Your task to perform on an android device: Add "razer blackwidow" to the cart on ebay Image 0: 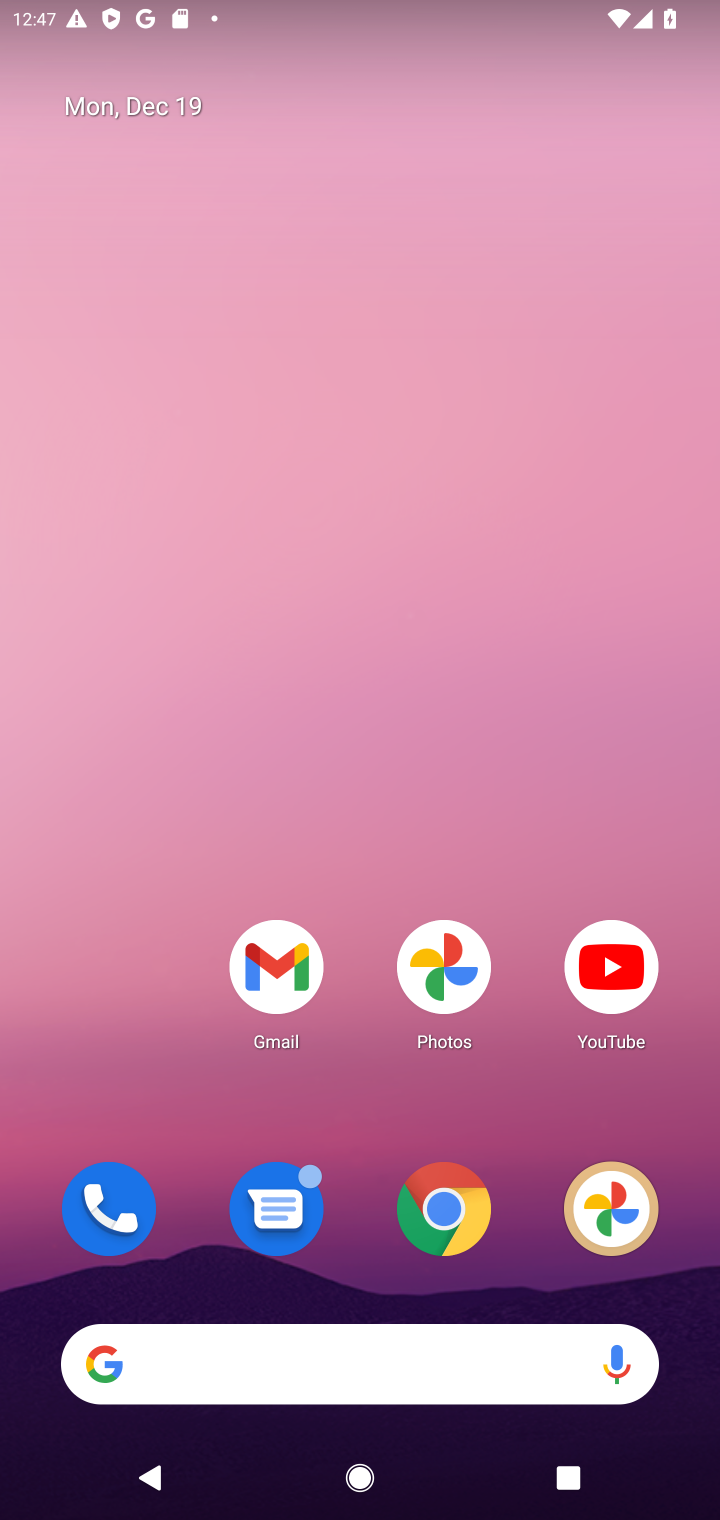
Step 0: click (461, 1182)
Your task to perform on an android device: Add "razer blackwidow" to the cart on ebay Image 1: 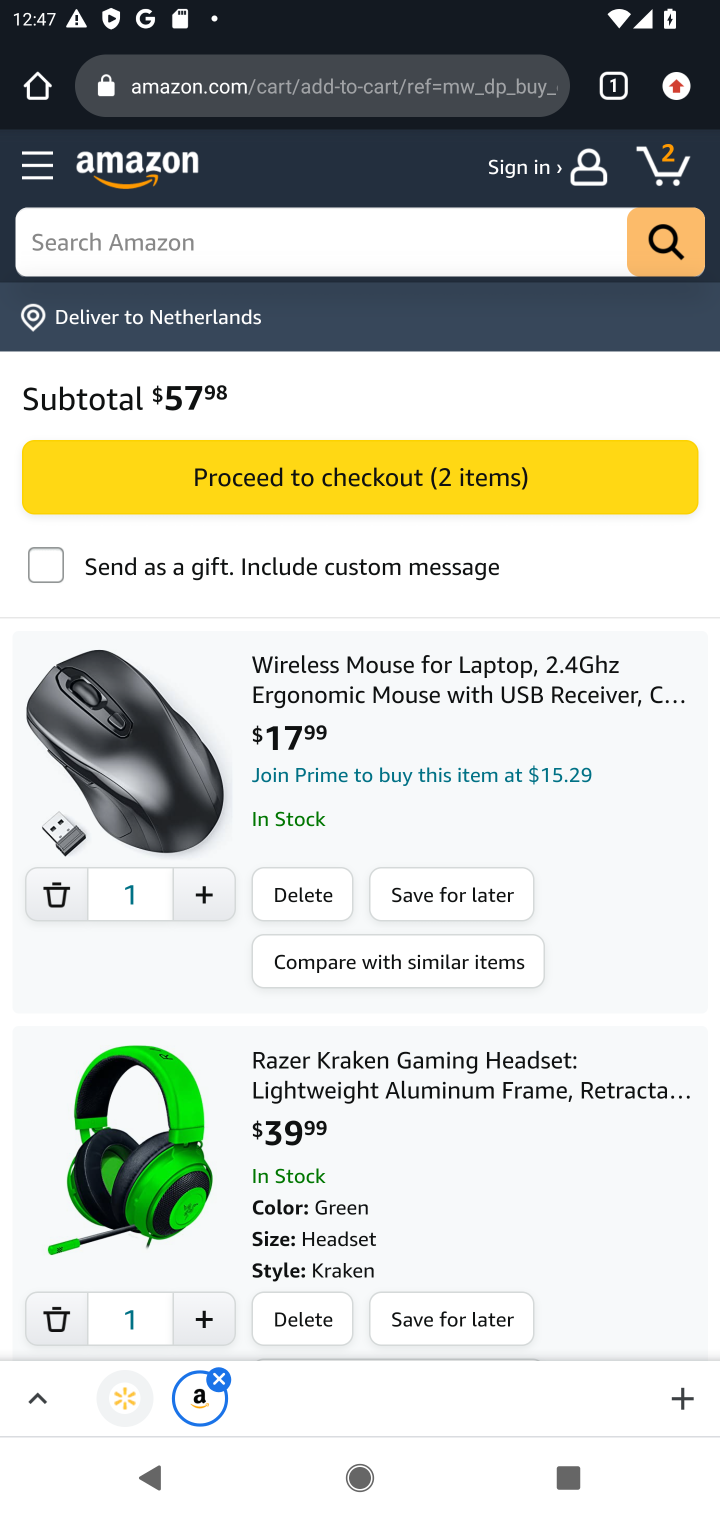
Step 1: click (275, 87)
Your task to perform on an android device: Add "razer blackwidow" to the cart on ebay Image 2: 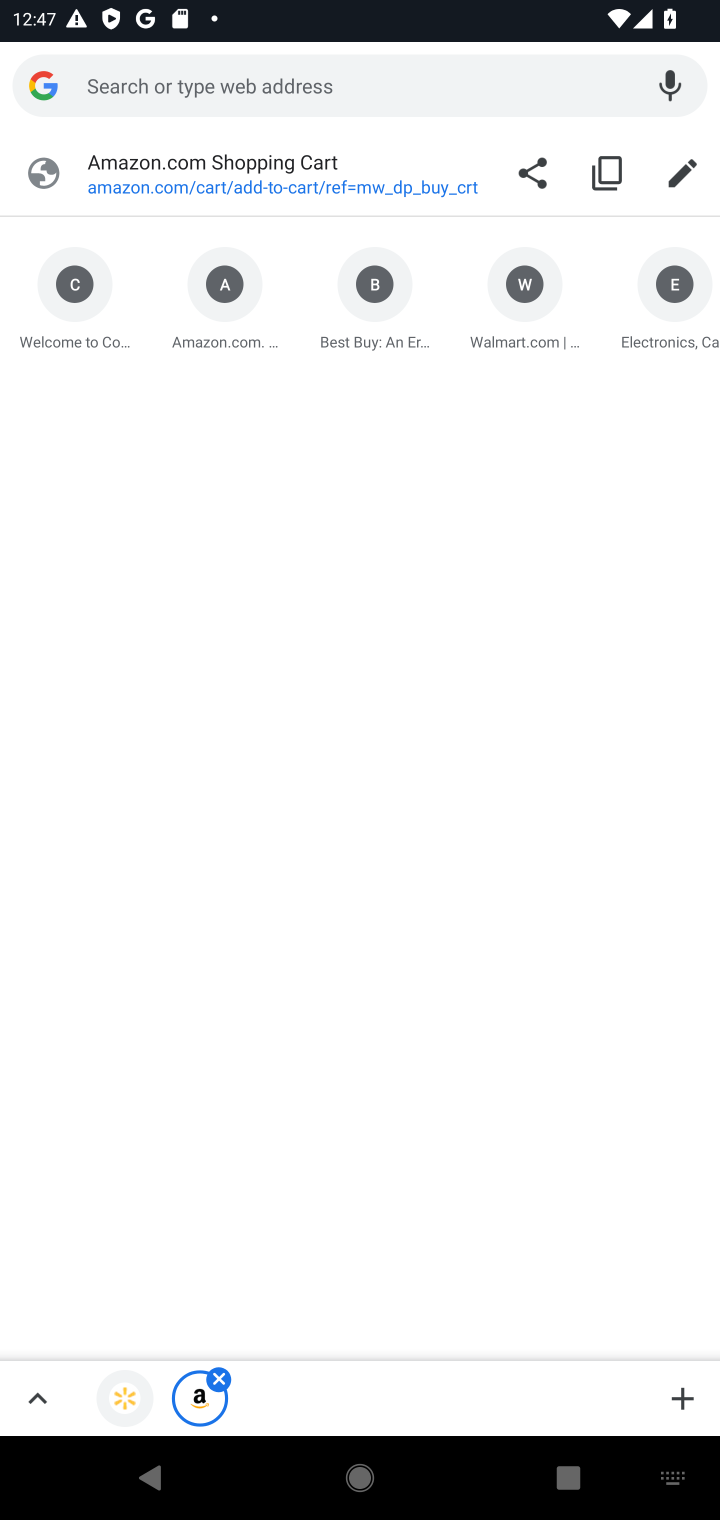
Step 2: type "ebay"
Your task to perform on an android device: Add "razer blackwidow" to the cart on ebay Image 3: 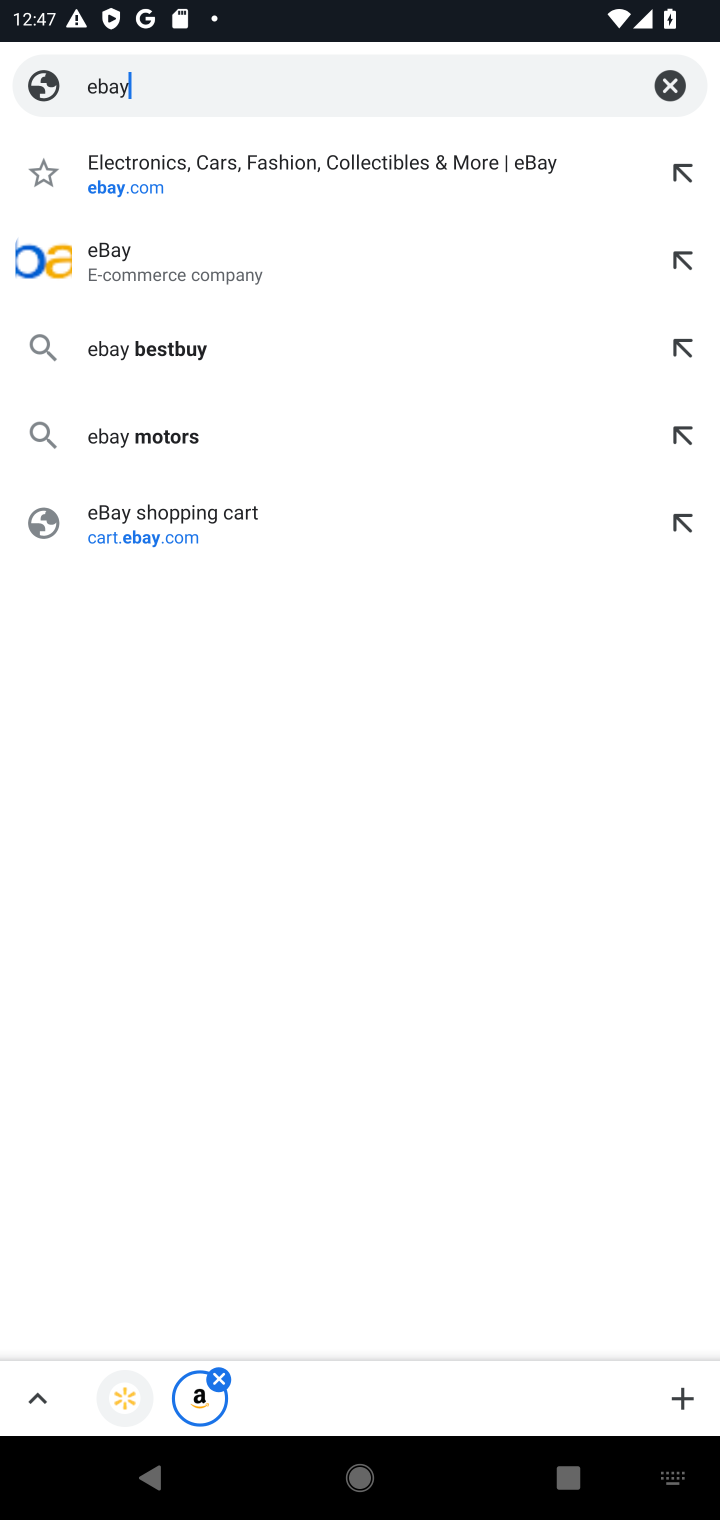
Step 3: click (211, 177)
Your task to perform on an android device: Add "razer blackwidow" to the cart on ebay Image 4: 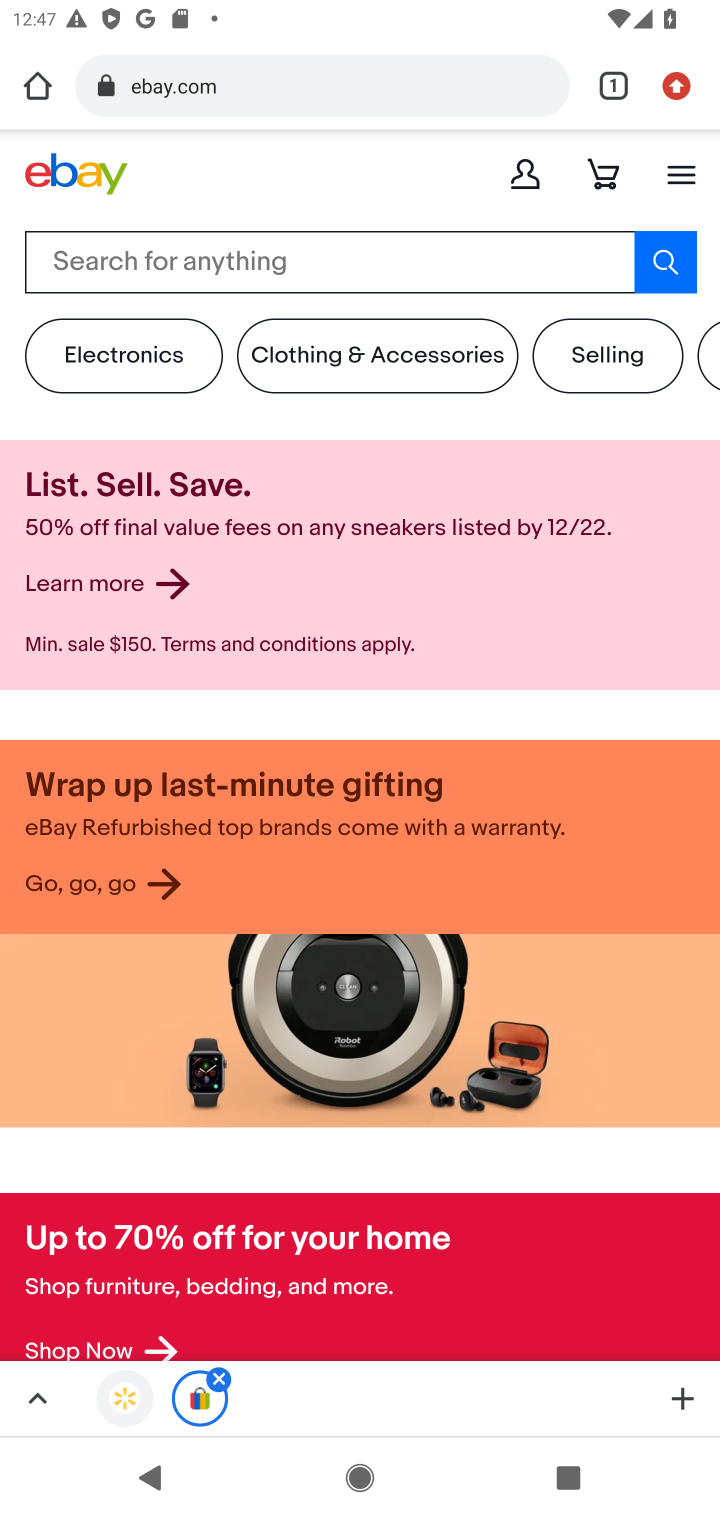
Step 4: click (326, 267)
Your task to perform on an android device: Add "razer blackwidow" to the cart on ebay Image 5: 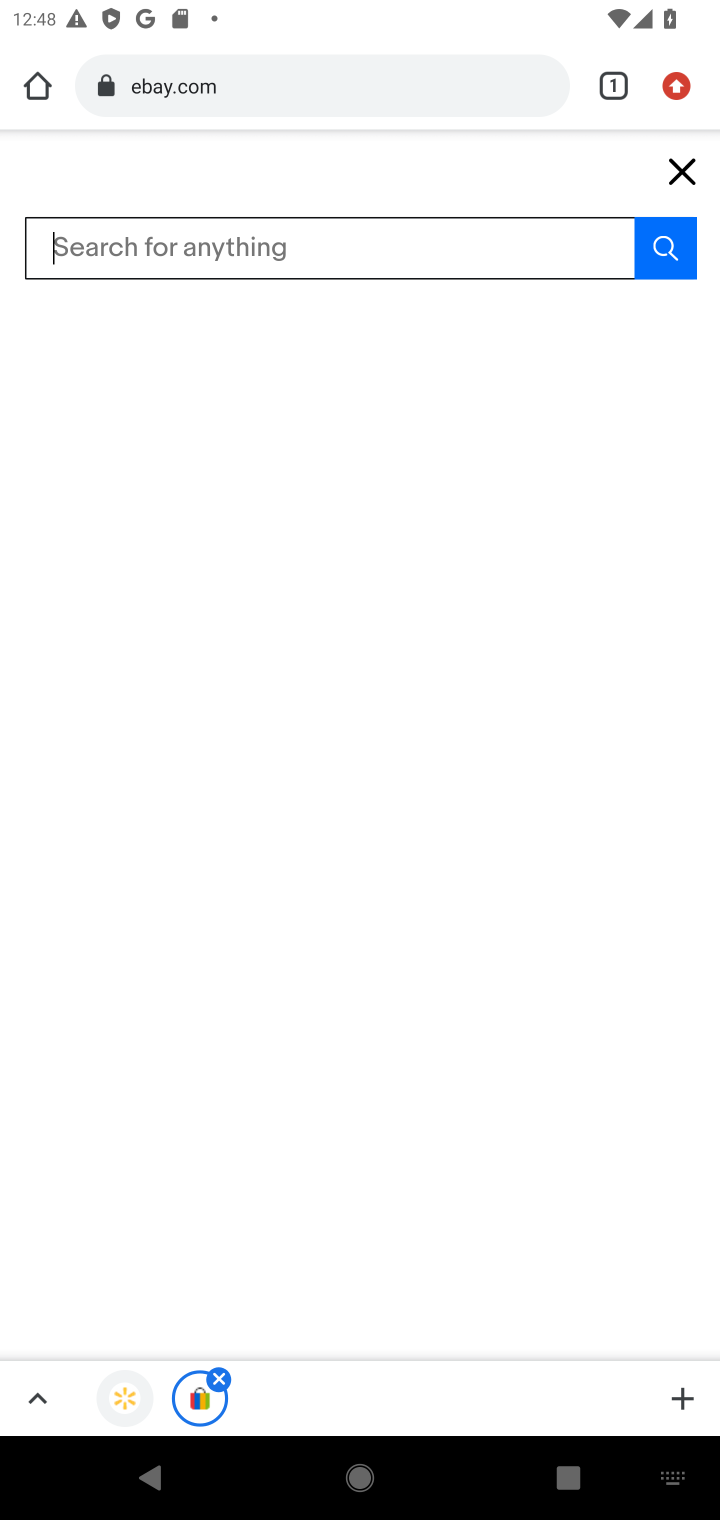
Step 5: type "razer blackwidow"
Your task to perform on an android device: Add "razer blackwidow" to the cart on ebay Image 6: 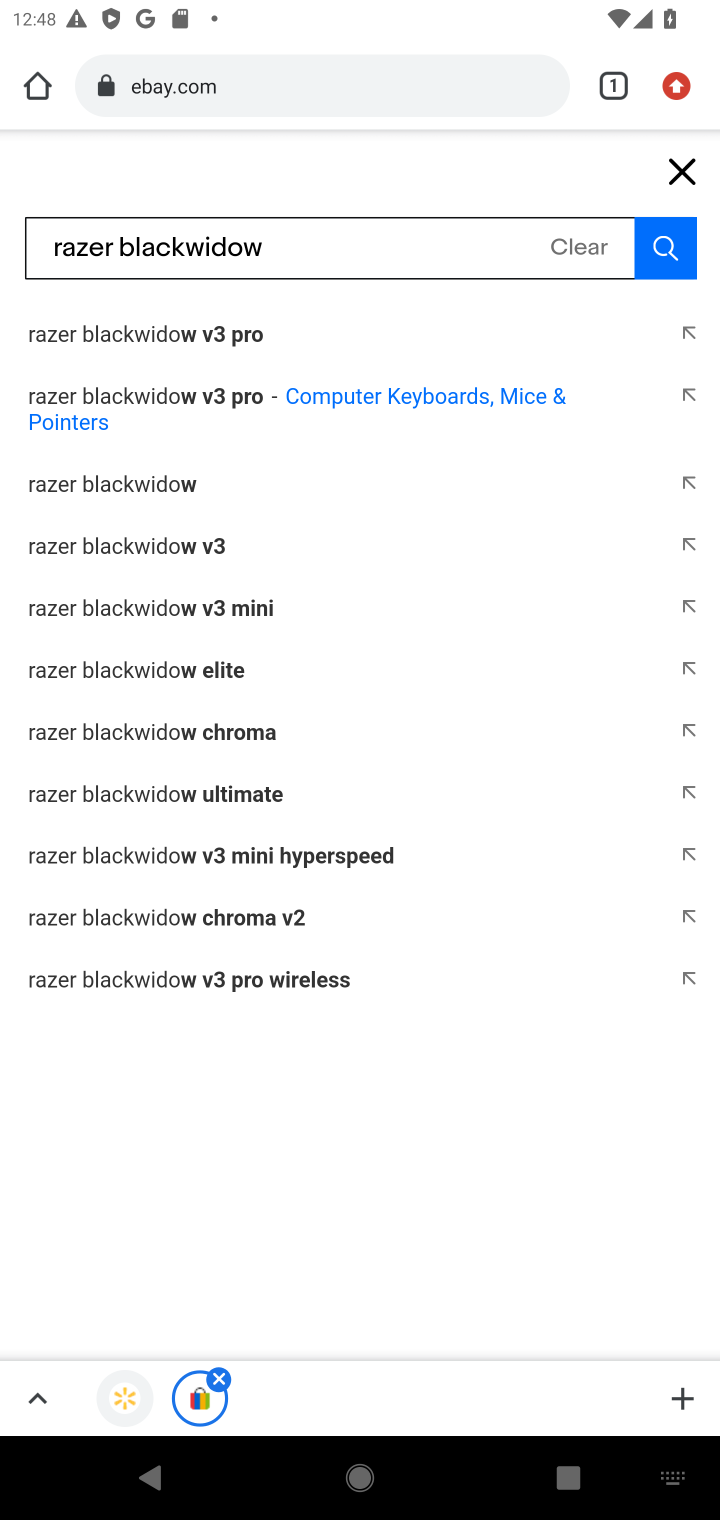
Step 6: click (164, 333)
Your task to perform on an android device: Add "razer blackwidow" to the cart on ebay Image 7: 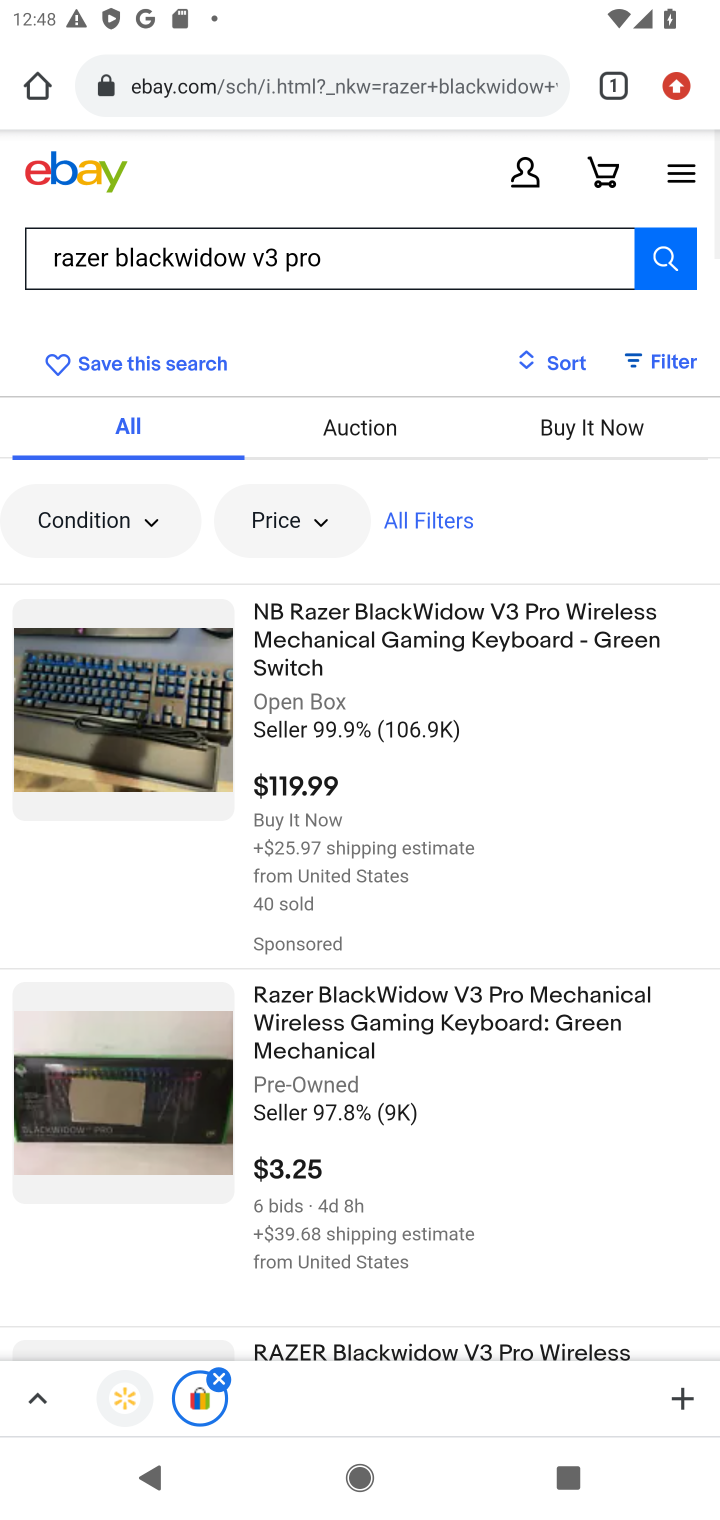
Step 7: click (474, 666)
Your task to perform on an android device: Add "razer blackwidow" to the cart on ebay Image 8: 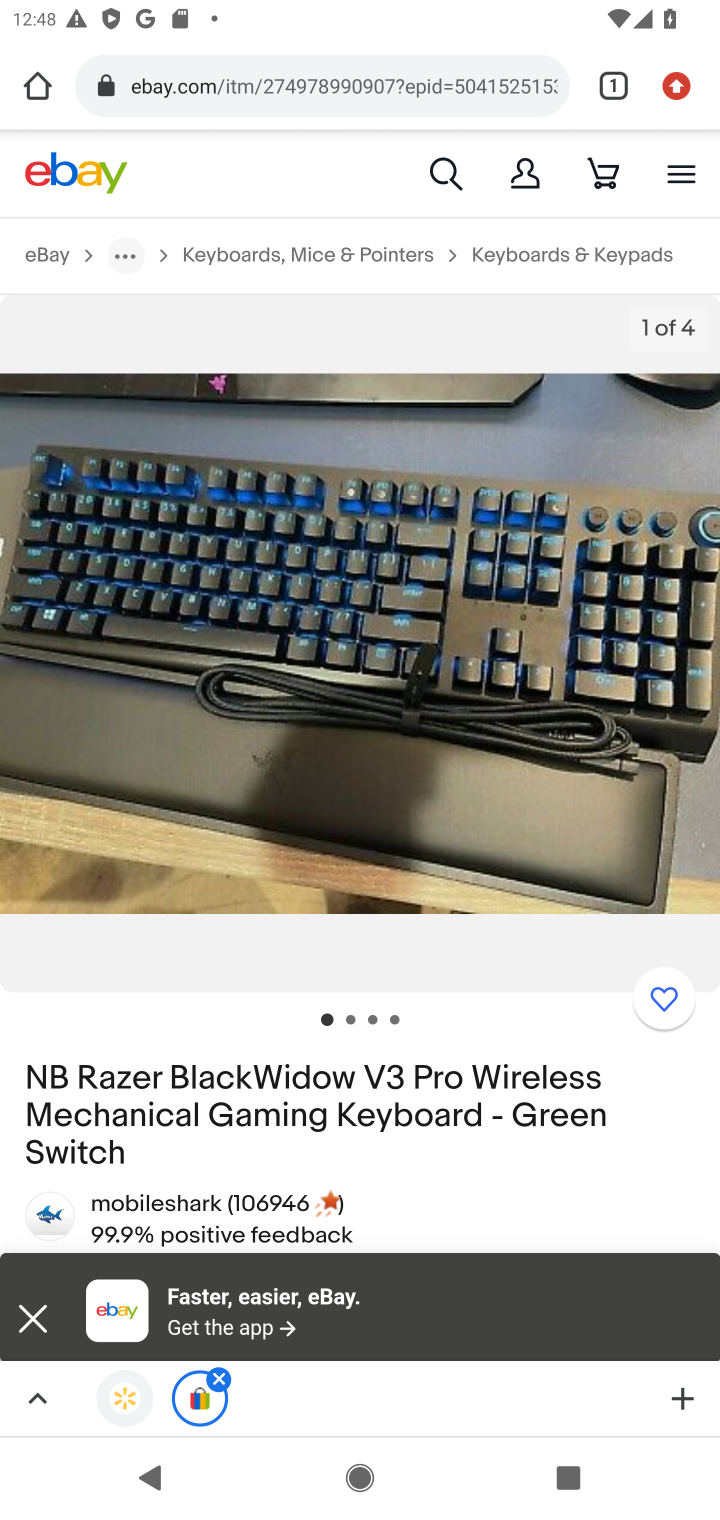
Step 8: drag from (426, 911) to (412, 344)
Your task to perform on an android device: Add "razer blackwidow" to the cart on ebay Image 9: 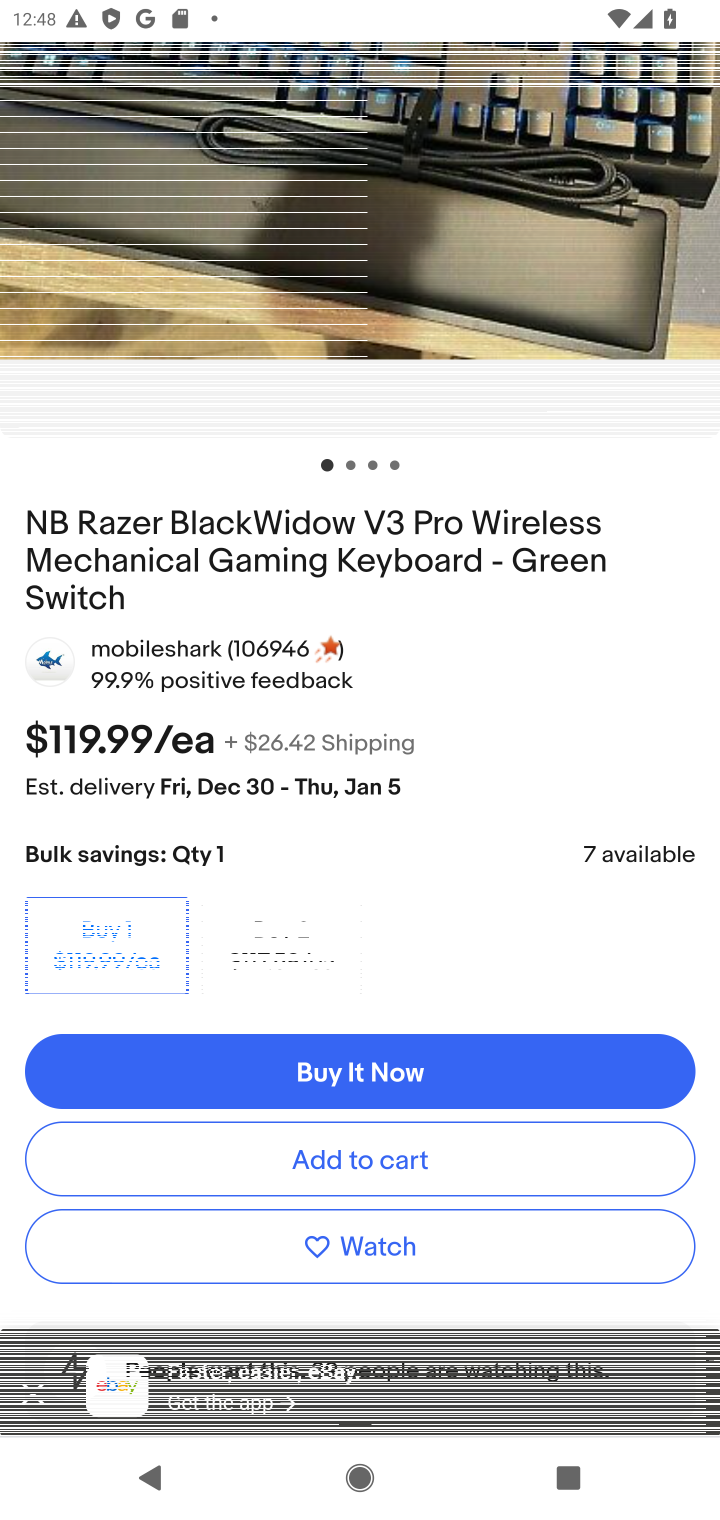
Step 9: click (384, 1161)
Your task to perform on an android device: Add "razer blackwidow" to the cart on ebay Image 10: 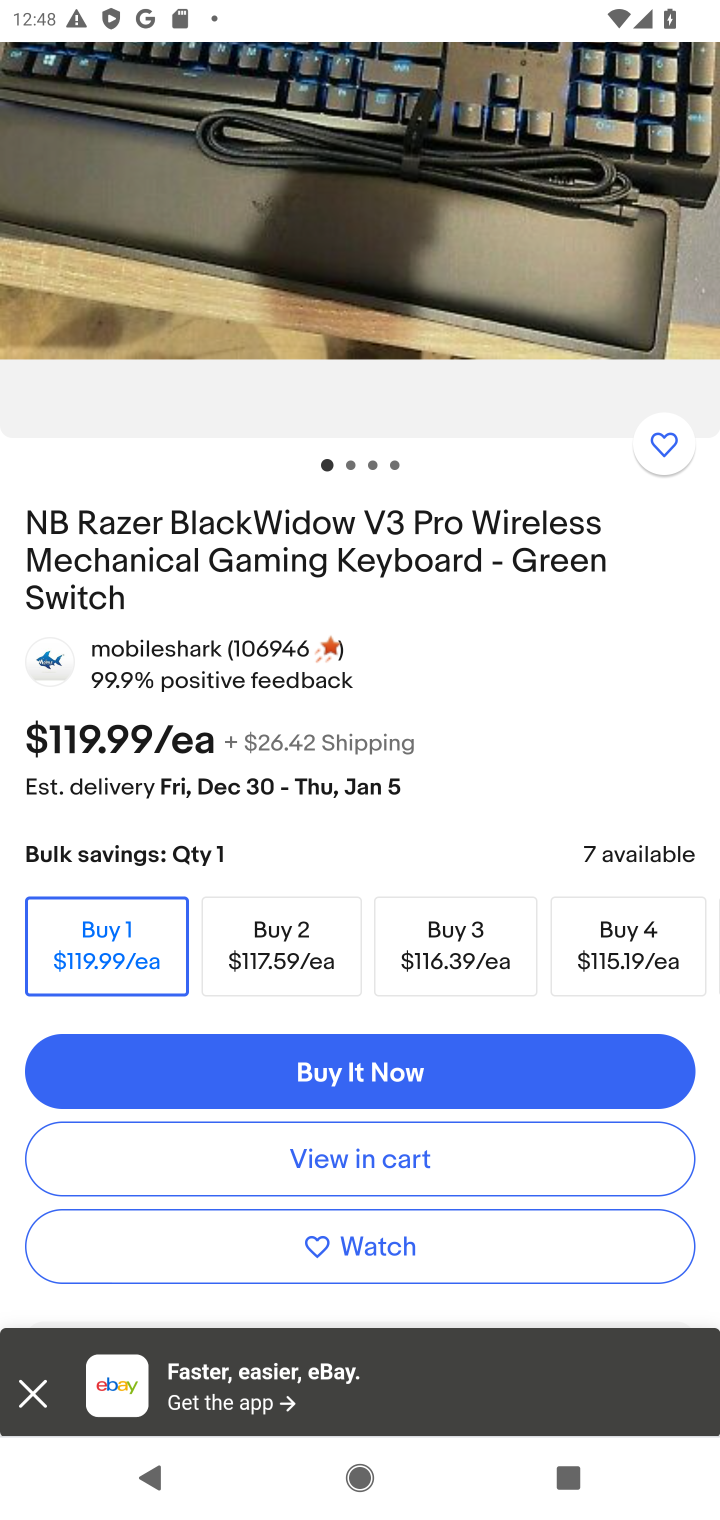
Step 10: click (384, 1161)
Your task to perform on an android device: Add "razer blackwidow" to the cart on ebay Image 11: 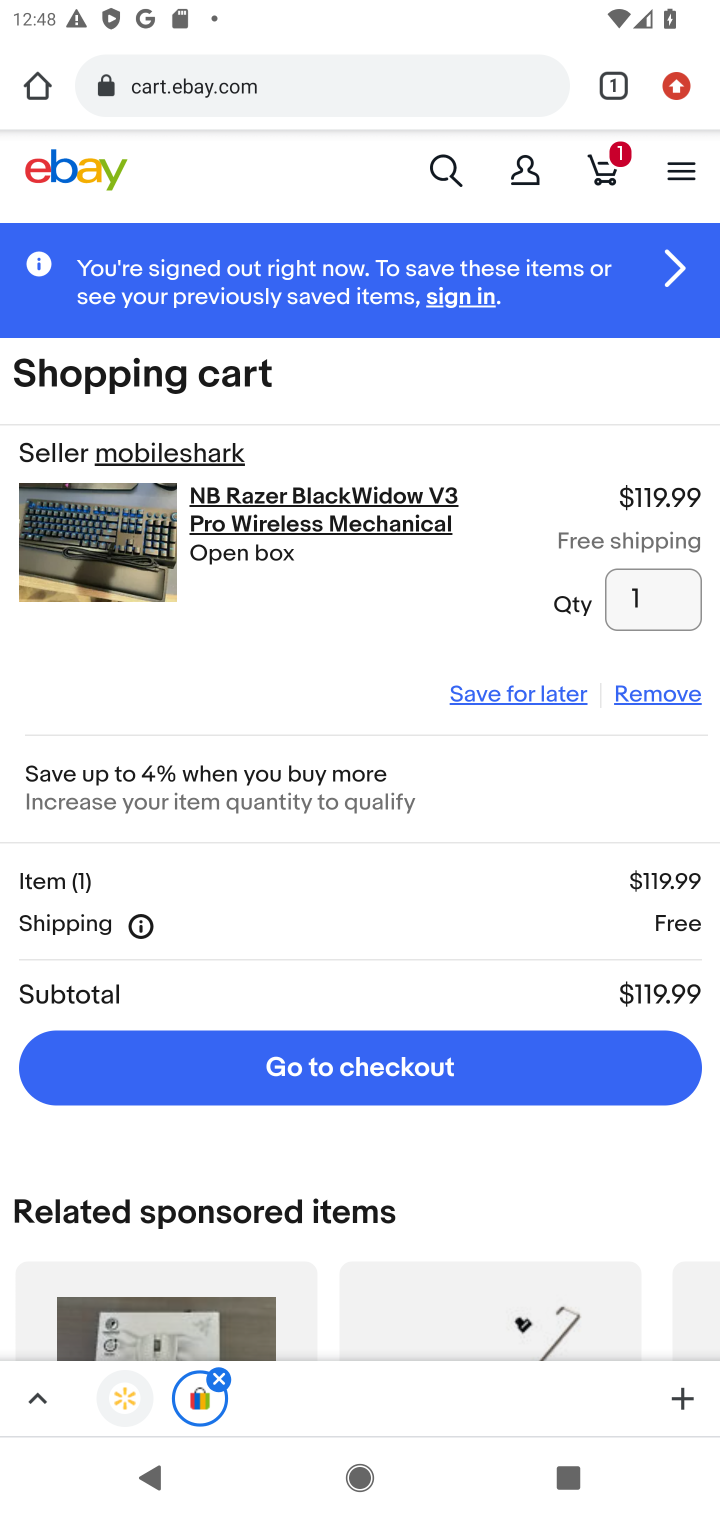
Step 11: click (415, 1082)
Your task to perform on an android device: Add "razer blackwidow" to the cart on ebay Image 12: 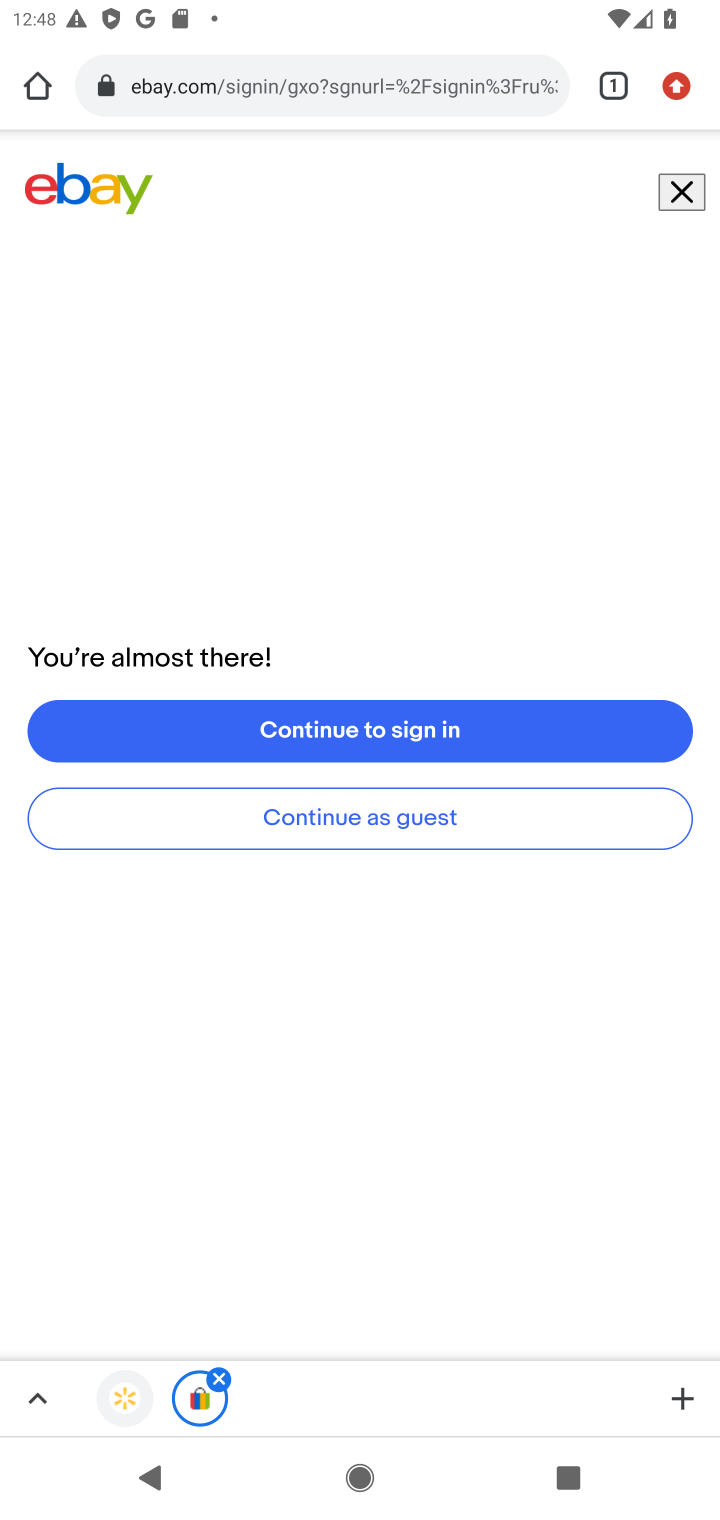
Step 12: task complete